Your task to perform on an android device: What's the weather going to be this weekend? Image 0: 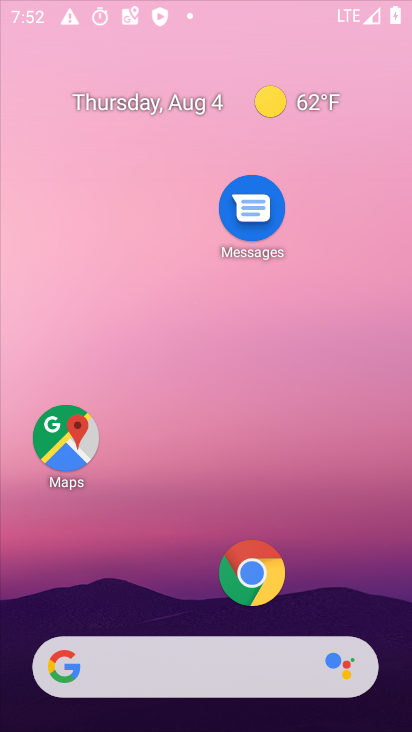
Step 0: press home button
Your task to perform on an android device: What's the weather going to be this weekend? Image 1: 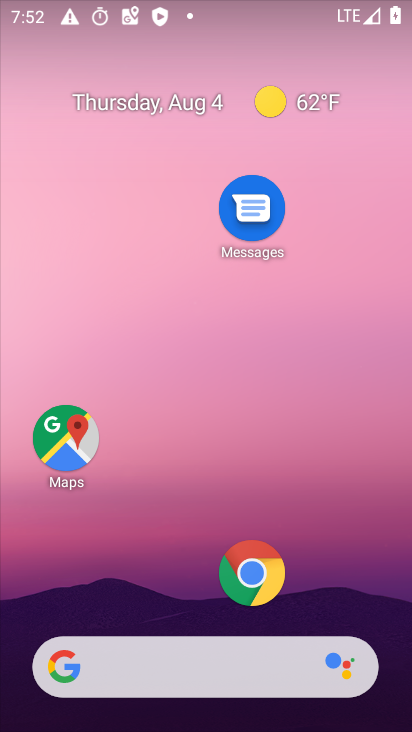
Step 1: click (67, 671)
Your task to perform on an android device: What's the weather going to be this weekend? Image 2: 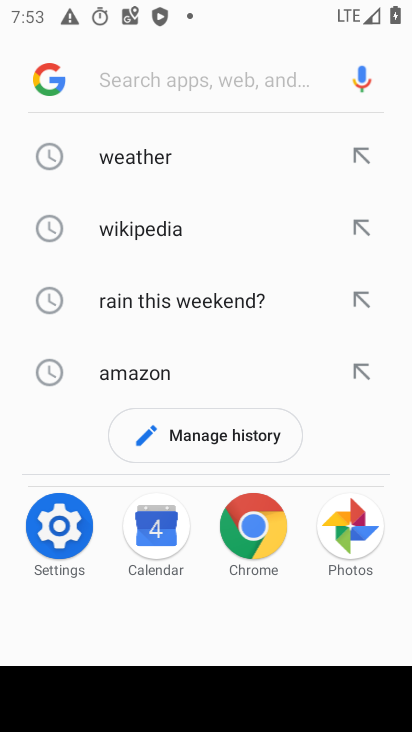
Step 2: type "weather going to be this weekend?"
Your task to perform on an android device: What's the weather going to be this weekend? Image 3: 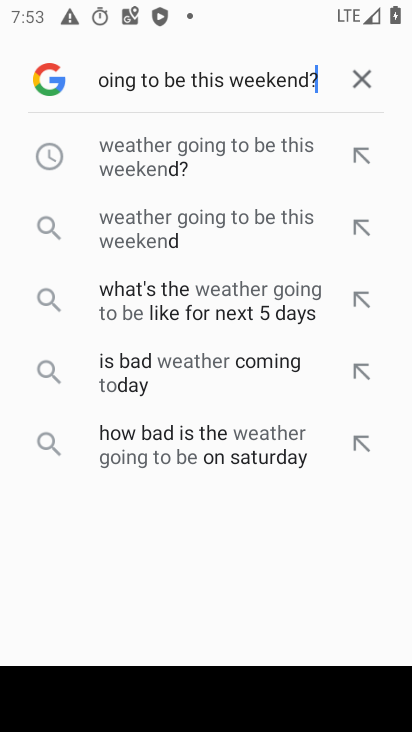
Step 3: press enter
Your task to perform on an android device: What's the weather going to be this weekend? Image 4: 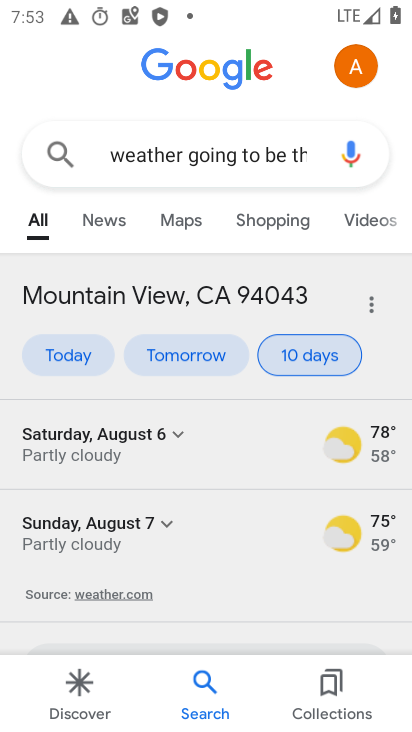
Step 4: task complete